Your task to perform on an android device: check storage Image 0: 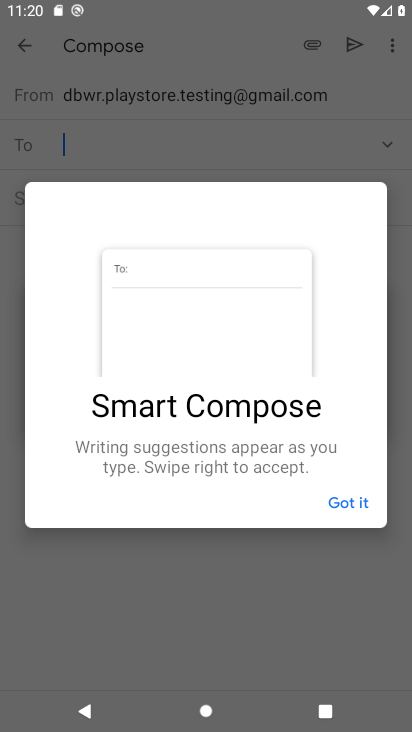
Step 0: press home button
Your task to perform on an android device: check storage Image 1: 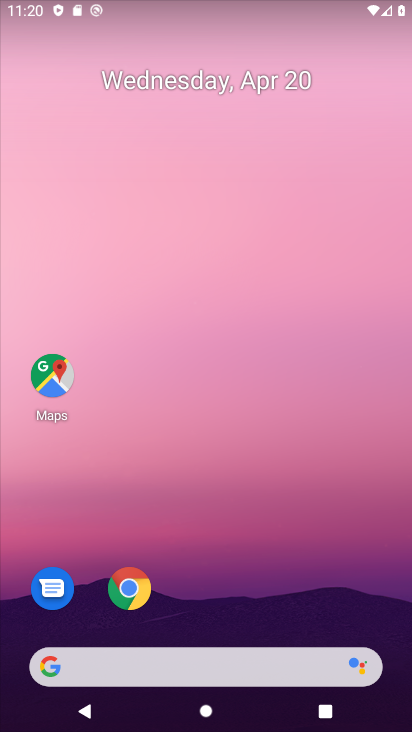
Step 1: drag from (198, 510) to (198, 210)
Your task to perform on an android device: check storage Image 2: 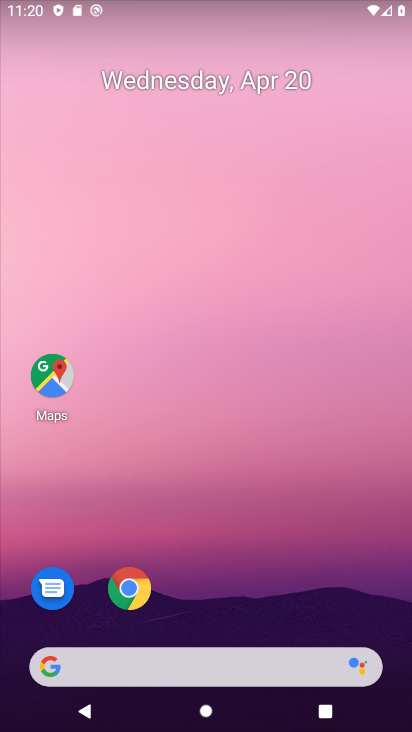
Step 2: drag from (198, 598) to (187, 159)
Your task to perform on an android device: check storage Image 3: 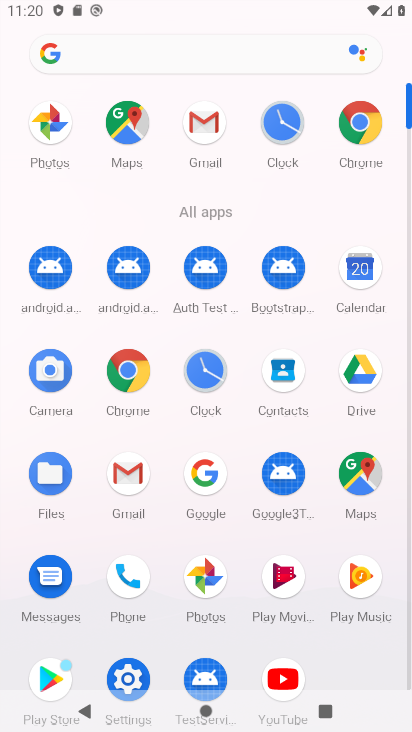
Step 3: click (124, 678)
Your task to perform on an android device: check storage Image 4: 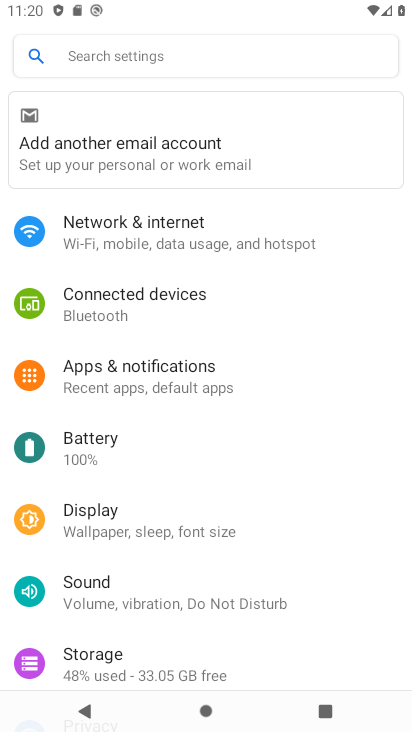
Step 4: click (145, 666)
Your task to perform on an android device: check storage Image 5: 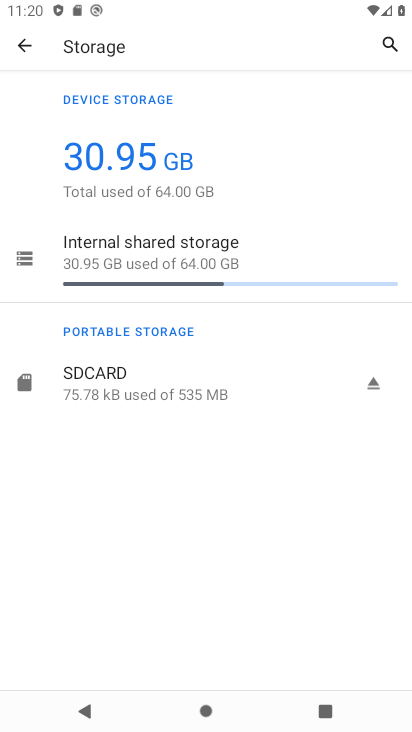
Step 5: task complete